Your task to perform on an android device: open device folders in google photos Image 0: 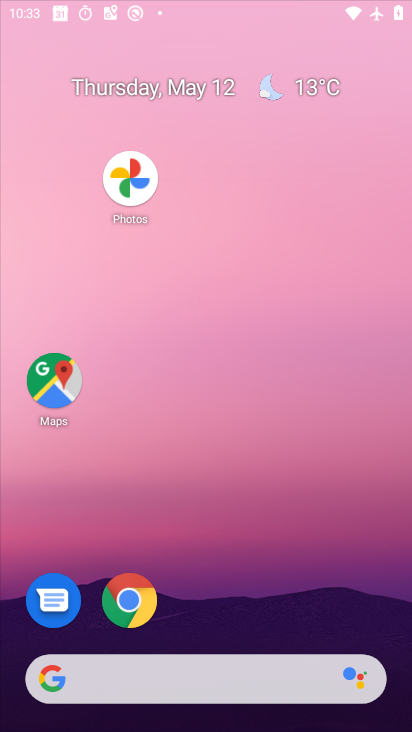
Step 0: drag from (269, 394) to (154, 6)
Your task to perform on an android device: open device folders in google photos Image 1: 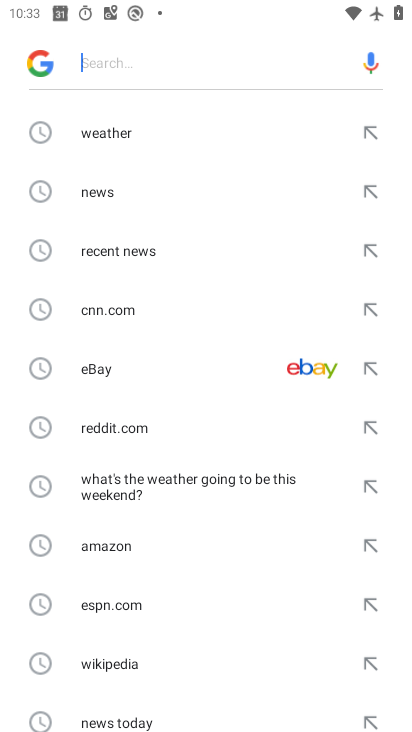
Step 1: press back button
Your task to perform on an android device: open device folders in google photos Image 2: 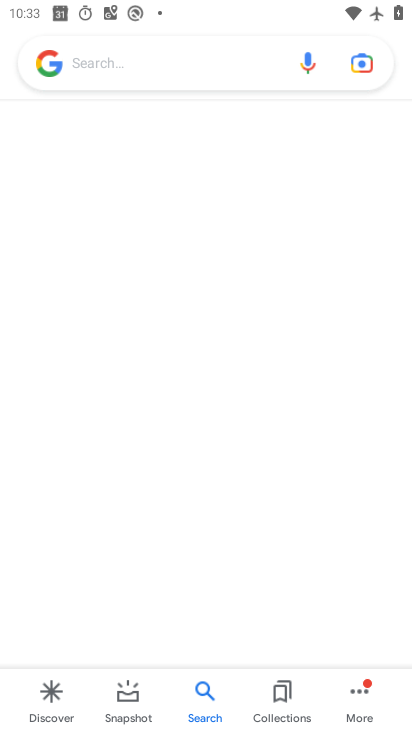
Step 2: press back button
Your task to perform on an android device: open device folders in google photos Image 3: 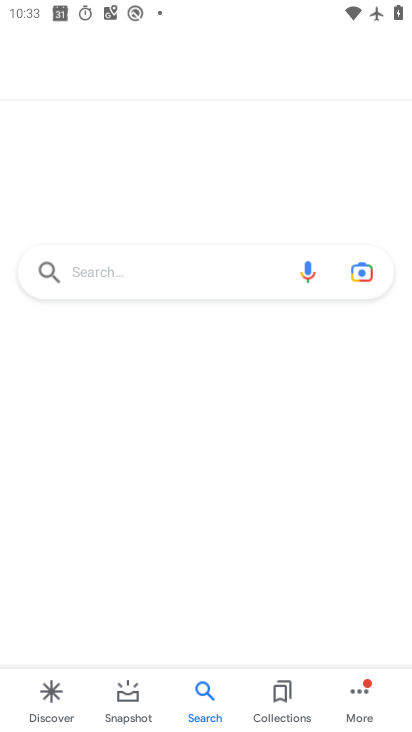
Step 3: press back button
Your task to perform on an android device: open device folders in google photos Image 4: 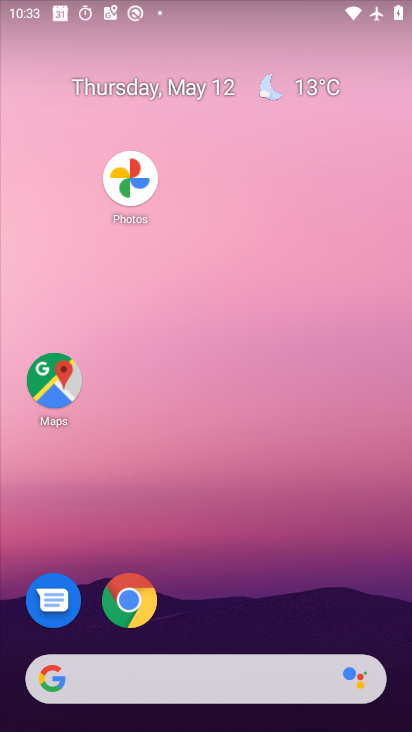
Step 4: drag from (318, 540) to (221, 78)
Your task to perform on an android device: open device folders in google photos Image 5: 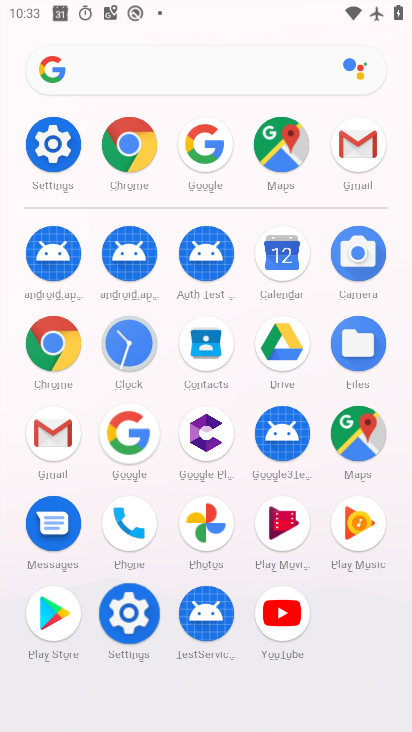
Step 5: click (207, 523)
Your task to perform on an android device: open device folders in google photos Image 6: 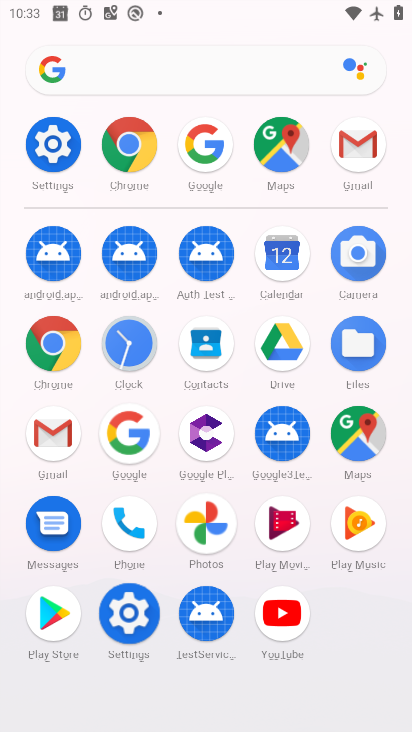
Step 6: click (205, 525)
Your task to perform on an android device: open device folders in google photos Image 7: 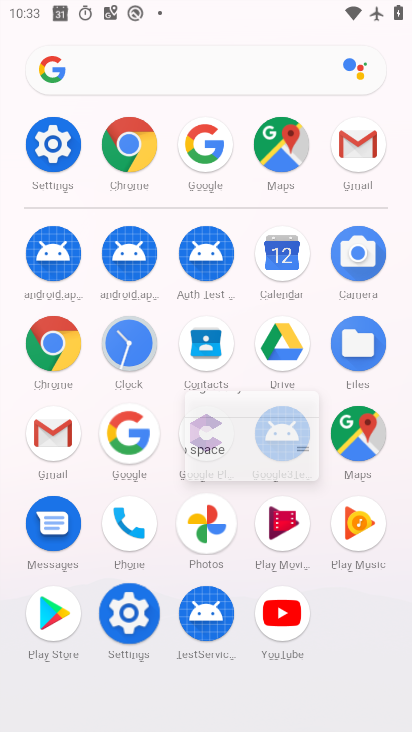
Step 7: click (205, 525)
Your task to perform on an android device: open device folders in google photos Image 8: 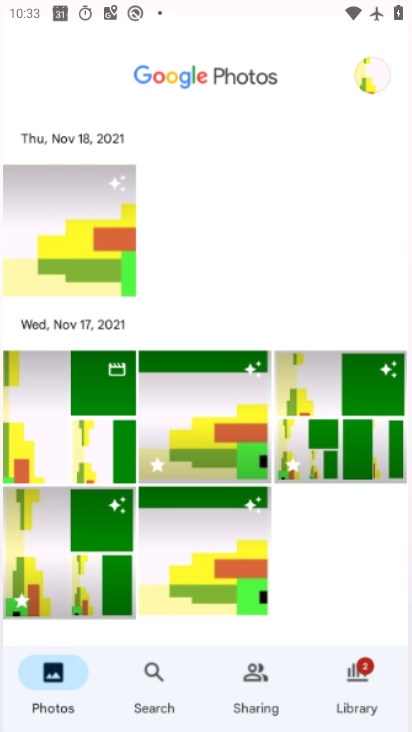
Step 8: click (188, 492)
Your task to perform on an android device: open device folders in google photos Image 9: 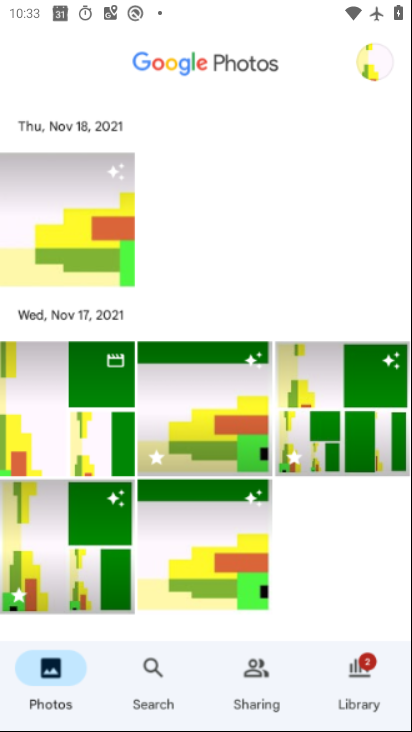
Step 9: click (197, 498)
Your task to perform on an android device: open device folders in google photos Image 10: 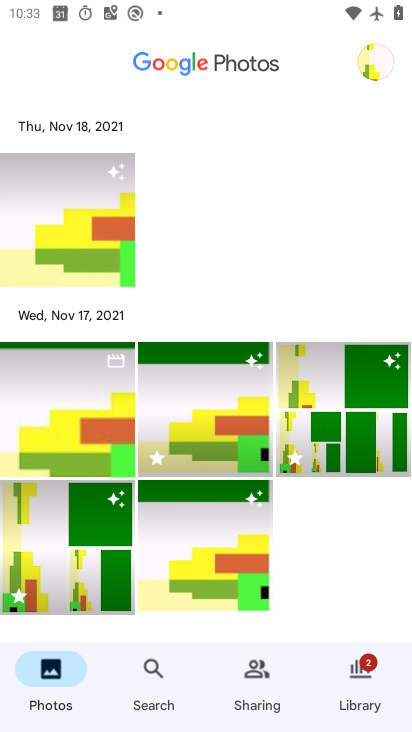
Step 10: task complete